Your task to perform on an android device: Is it going to rain tomorrow? Image 0: 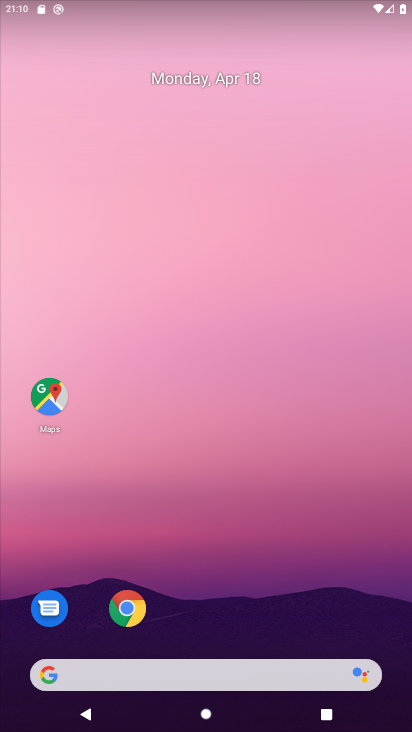
Step 0: drag from (226, 573) to (239, 111)
Your task to perform on an android device: Is it going to rain tomorrow? Image 1: 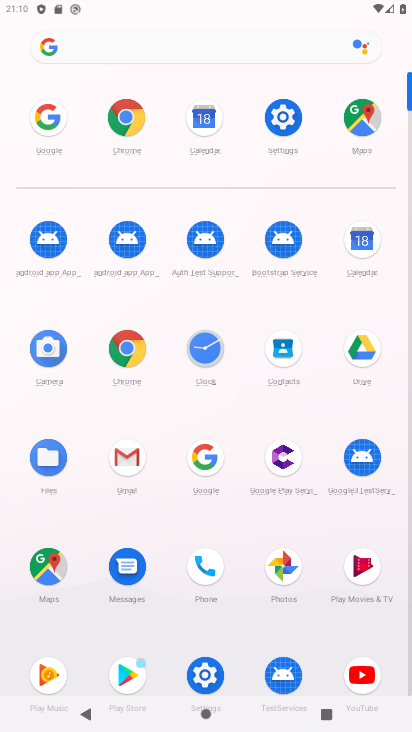
Step 1: click (45, 114)
Your task to perform on an android device: Is it going to rain tomorrow? Image 2: 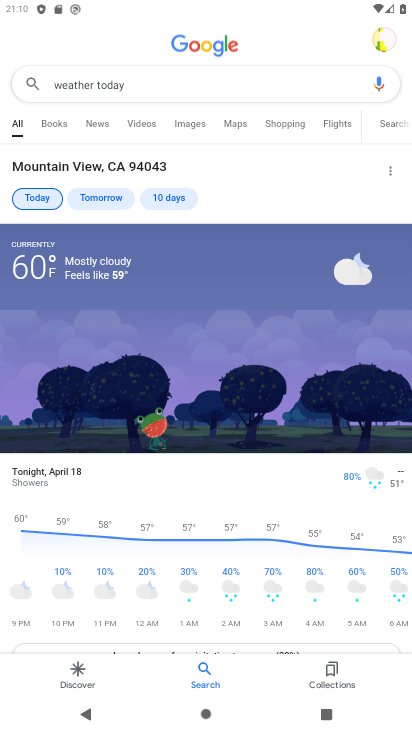
Step 2: click (223, 85)
Your task to perform on an android device: Is it going to rain tomorrow? Image 3: 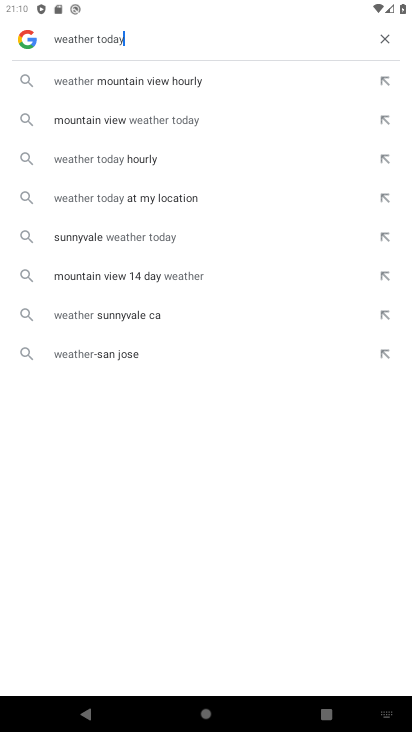
Step 3: click (384, 36)
Your task to perform on an android device: Is it going to rain tomorrow? Image 4: 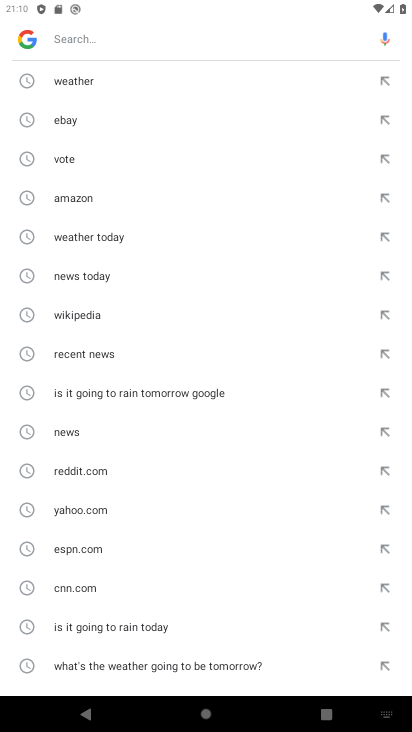
Step 4: type "is it going to rain tomorrow"
Your task to perform on an android device: Is it going to rain tomorrow? Image 5: 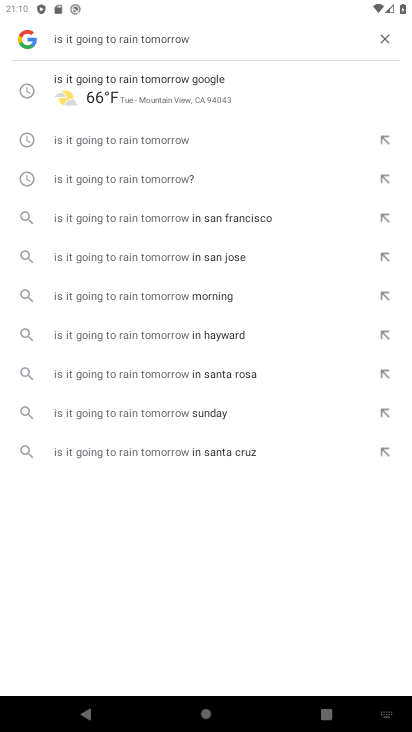
Step 5: click (145, 92)
Your task to perform on an android device: Is it going to rain tomorrow? Image 6: 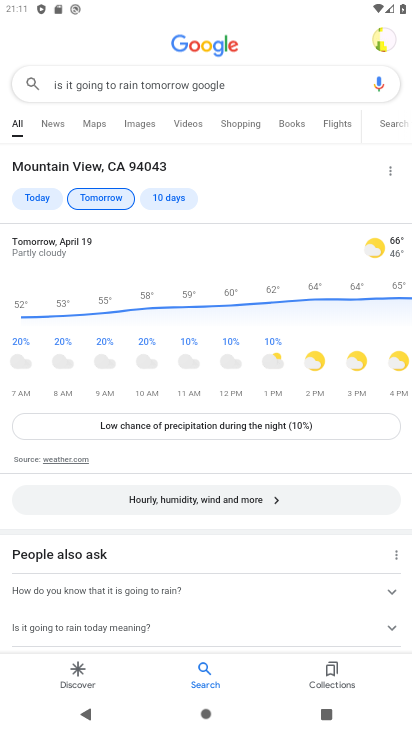
Step 6: task complete